Your task to perform on an android device: Show the shopping cart on amazon. Image 0: 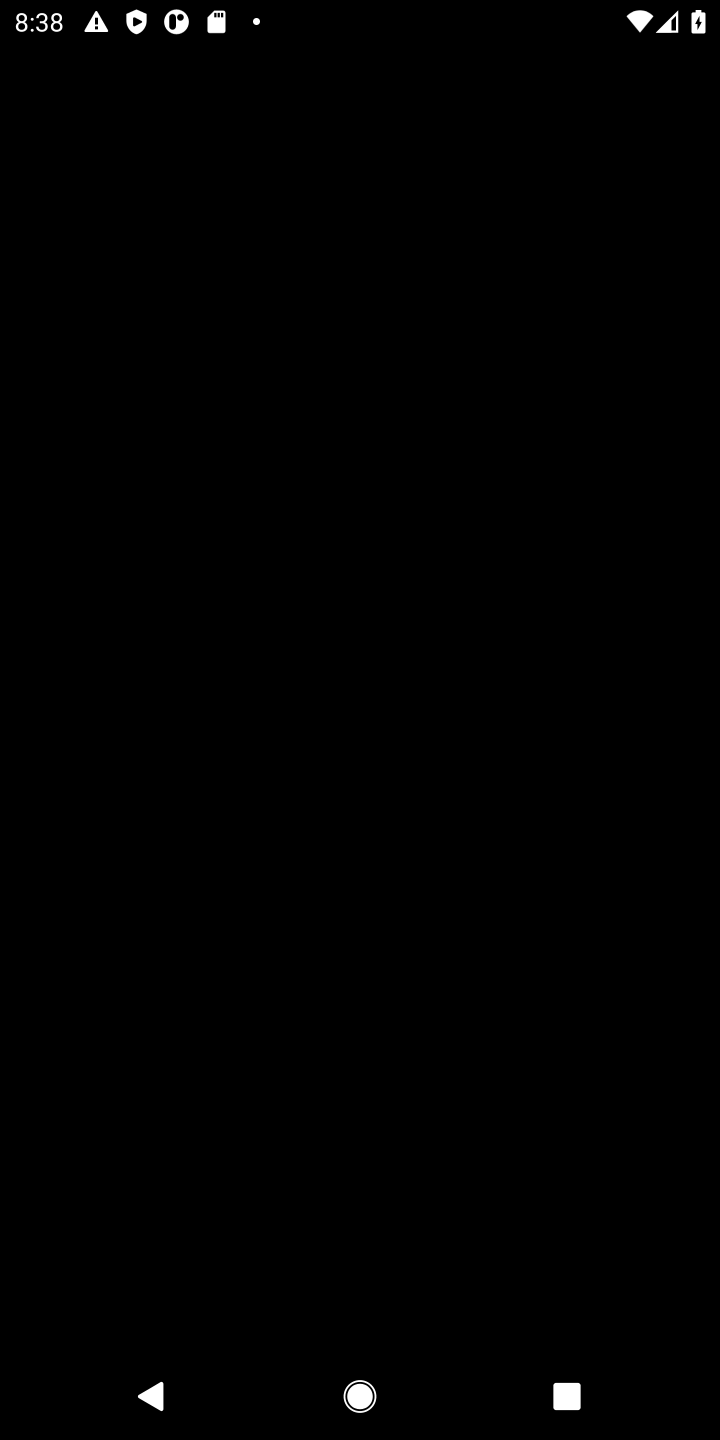
Step 0: press home button
Your task to perform on an android device: Show the shopping cart on amazon. Image 1: 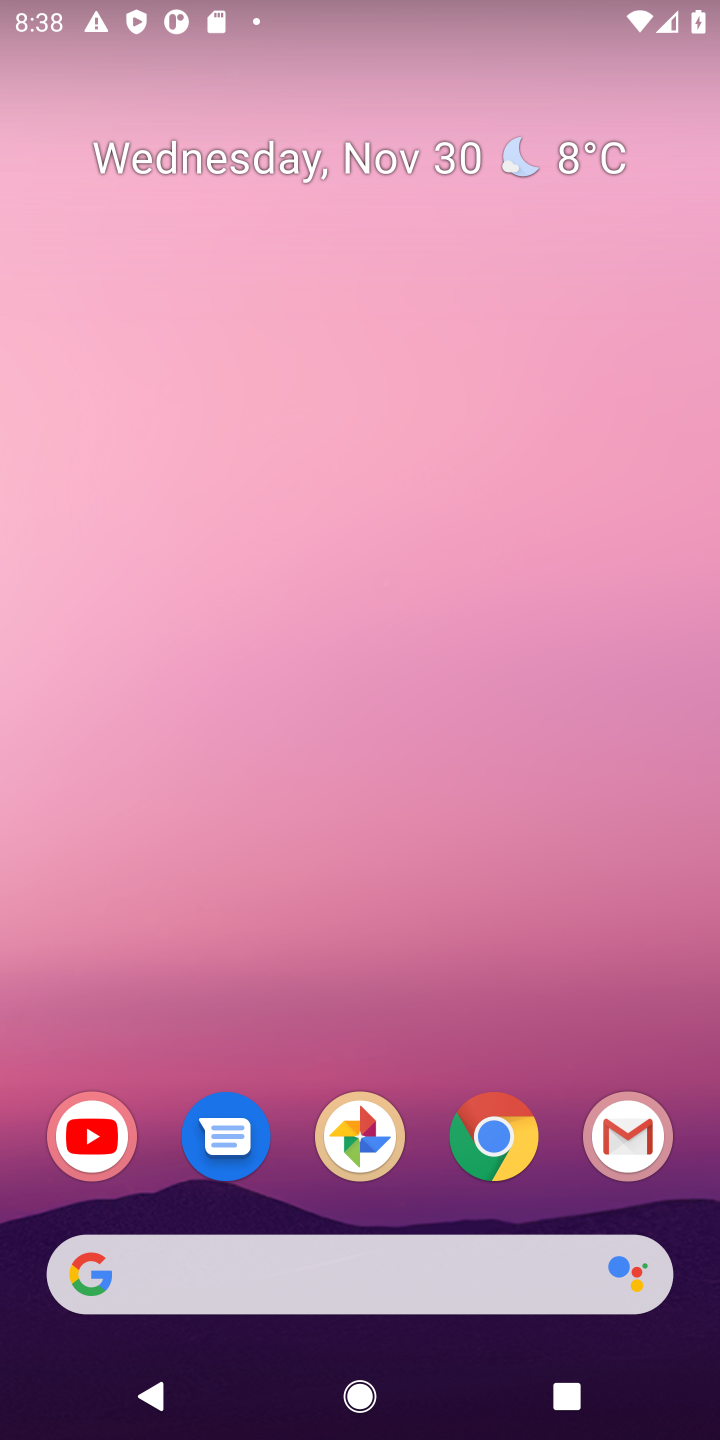
Step 1: click (503, 1144)
Your task to perform on an android device: Show the shopping cart on amazon. Image 2: 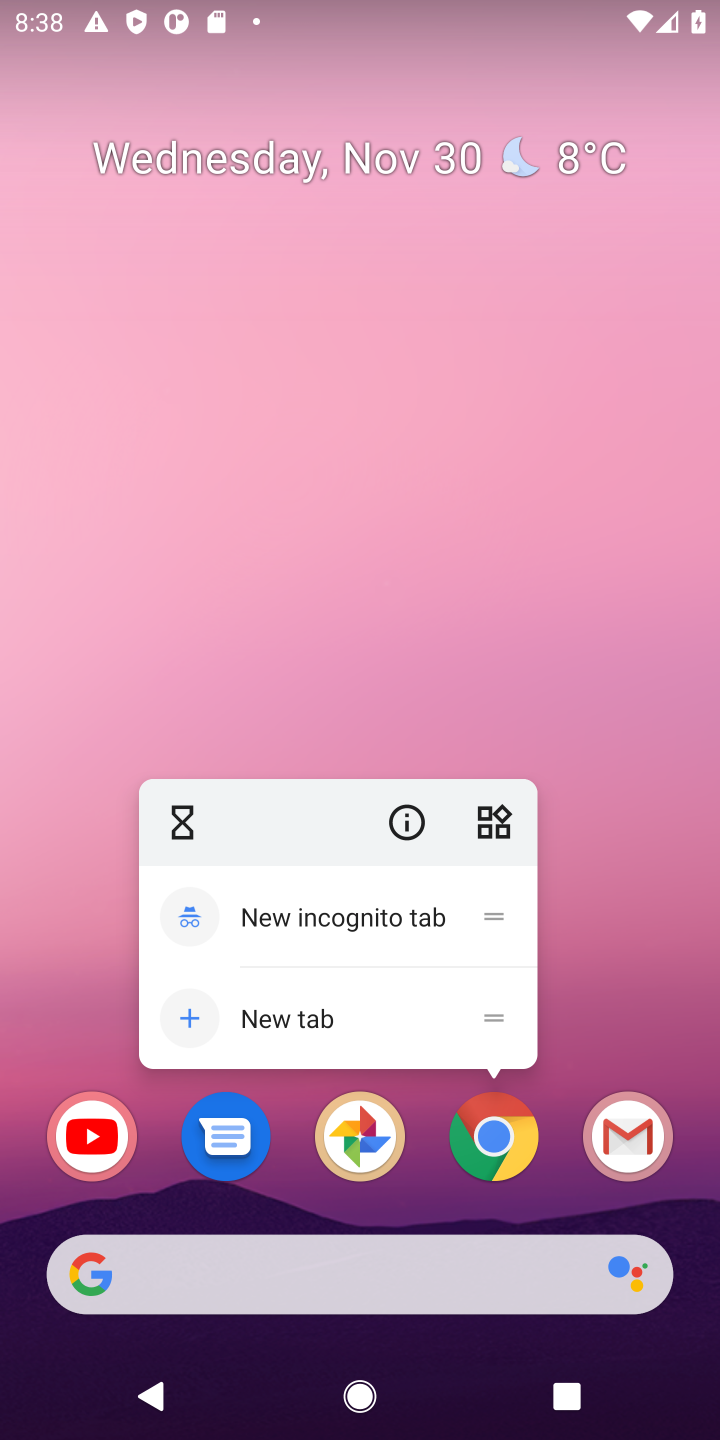
Step 2: click (503, 1144)
Your task to perform on an android device: Show the shopping cart on amazon. Image 3: 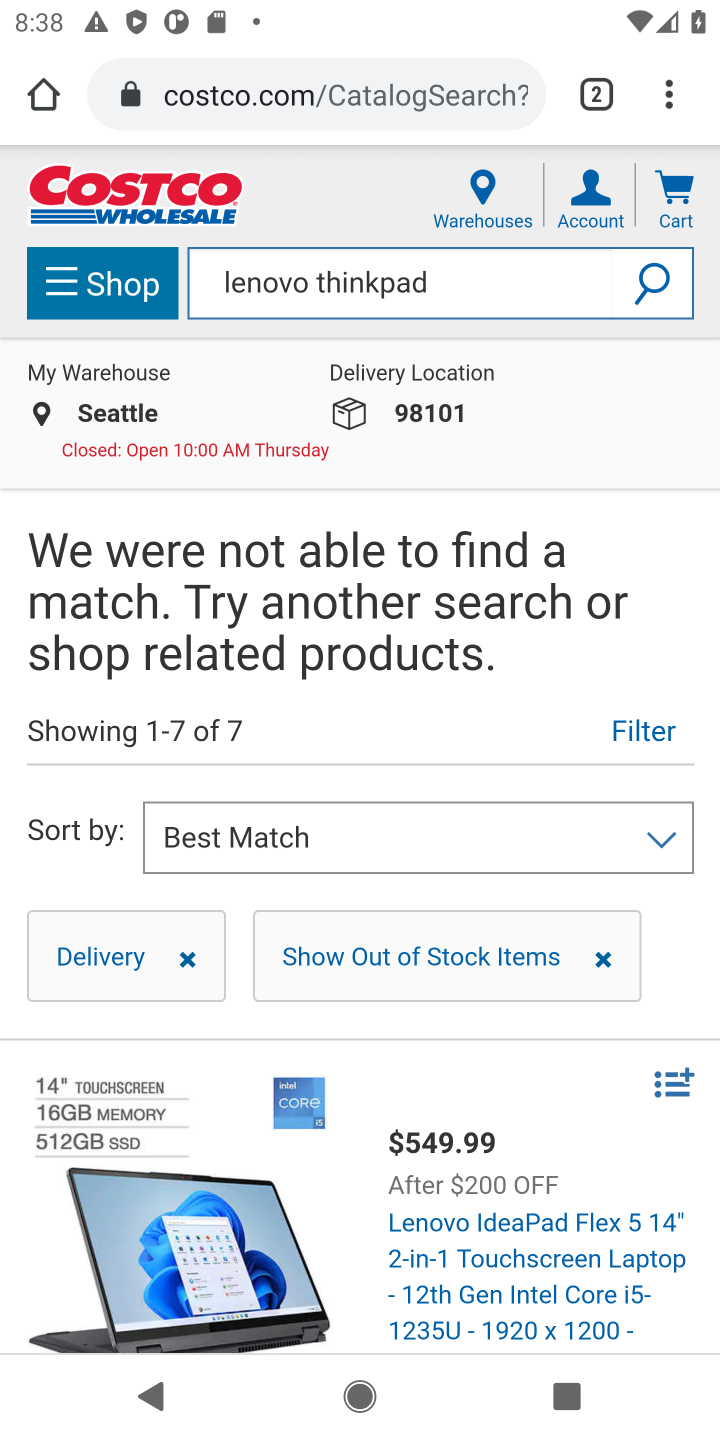
Step 3: click (310, 91)
Your task to perform on an android device: Show the shopping cart on amazon. Image 4: 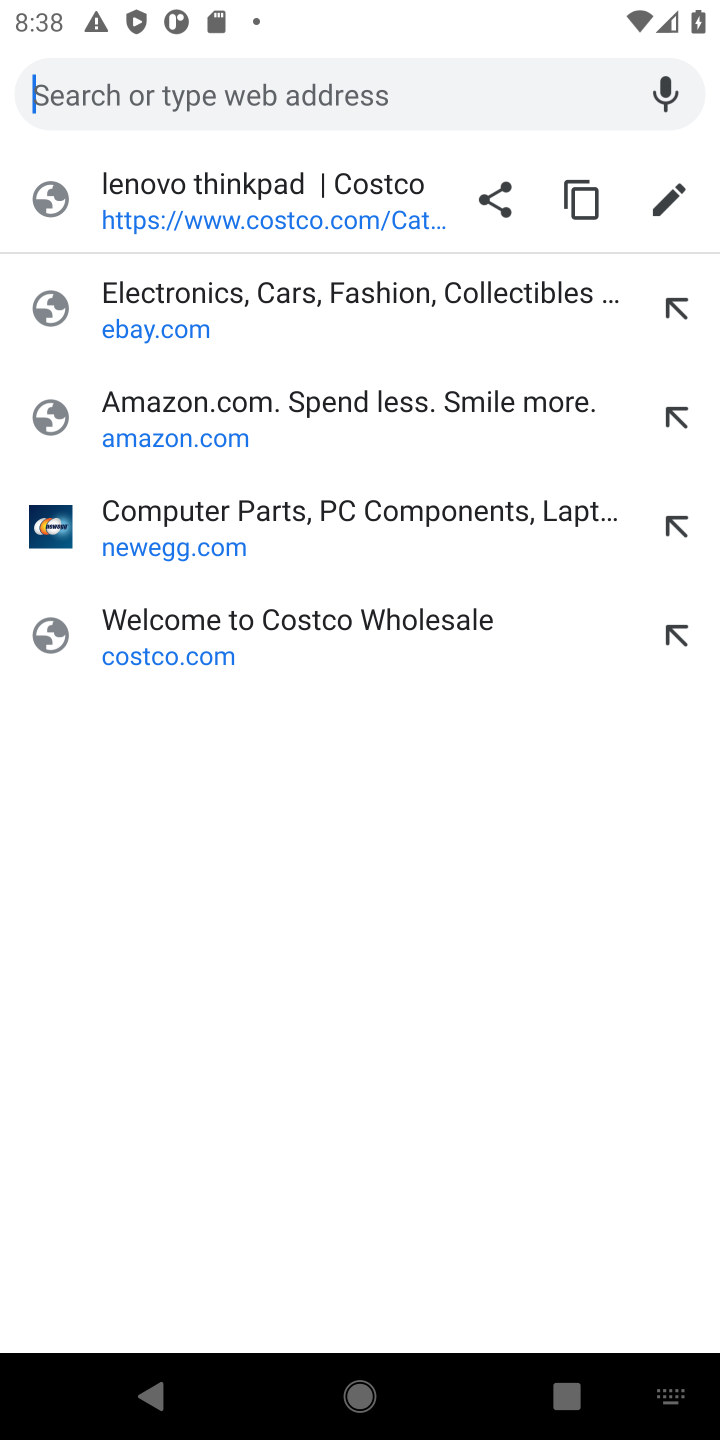
Step 4: click (110, 425)
Your task to perform on an android device: Show the shopping cart on amazon. Image 5: 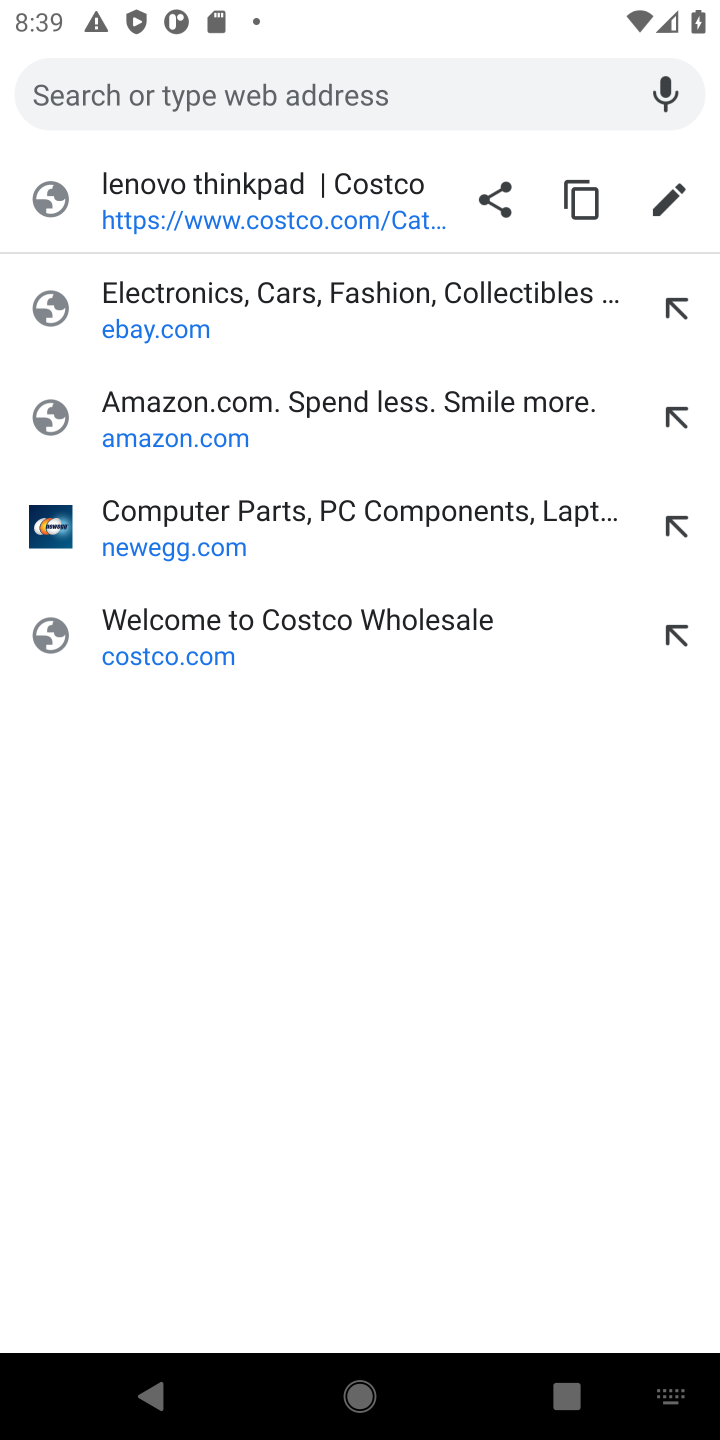
Step 5: click (158, 429)
Your task to perform on an android device: Show the shopping cart on amazon. Image 6: 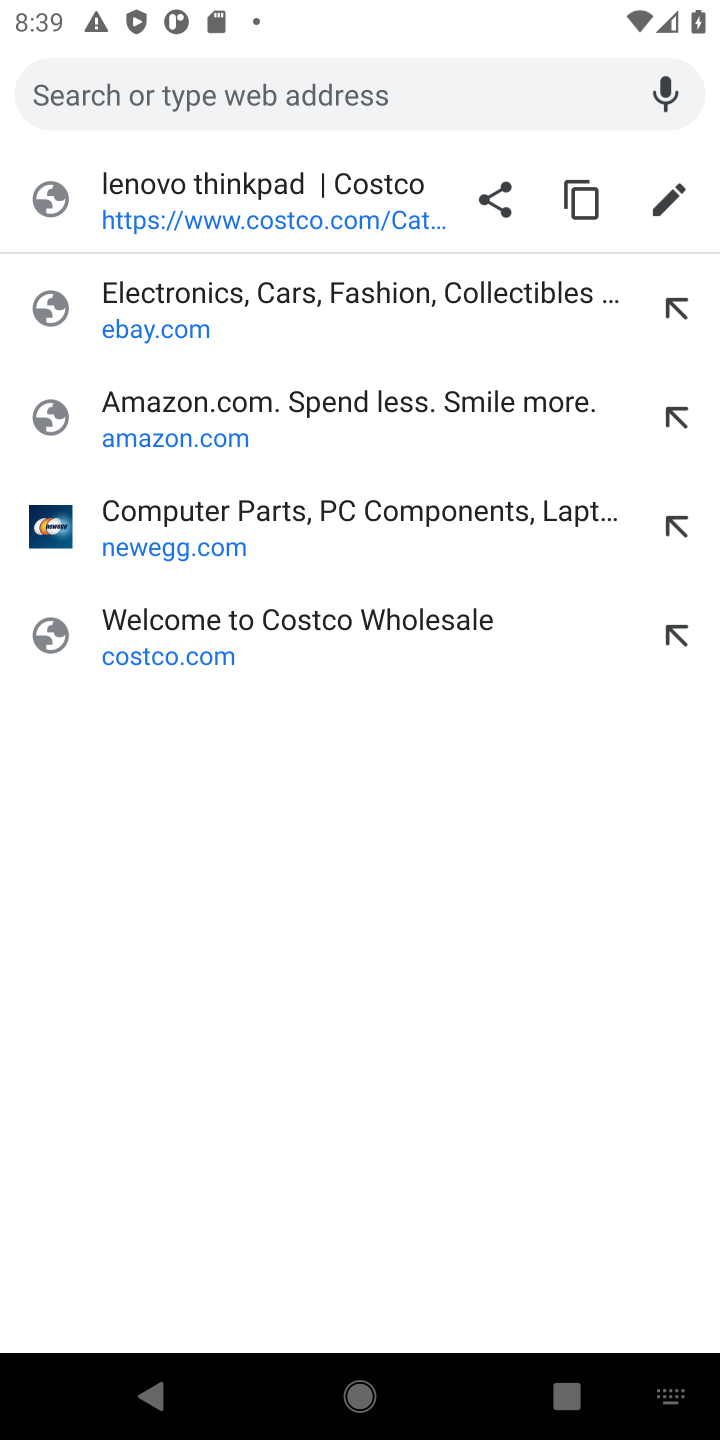
Step 6: click (152, 413)
Your task to perform on an android device: Show the shopping cart on amazon. Image 7: 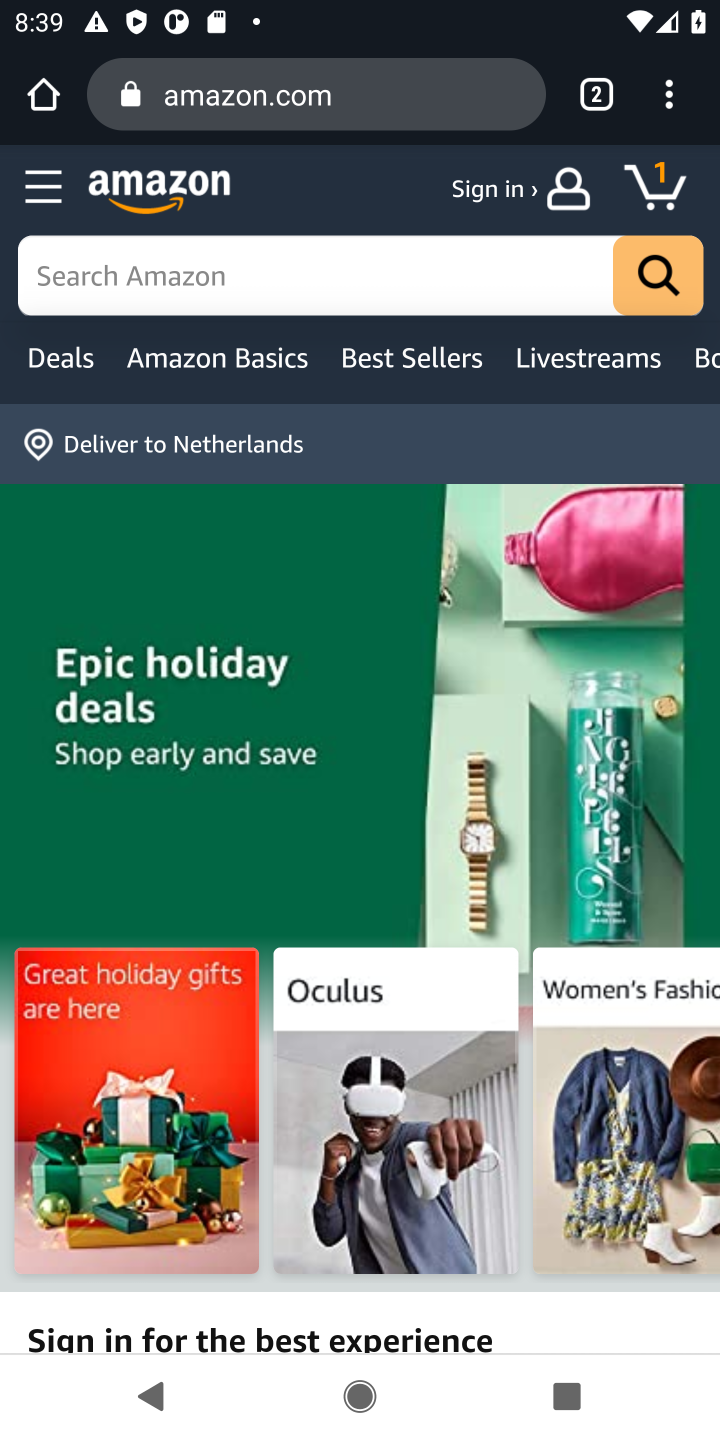
Step 7: click (643, 180)
Your task to perform on an android device: Show the shopping cart on amazon. Image 8: 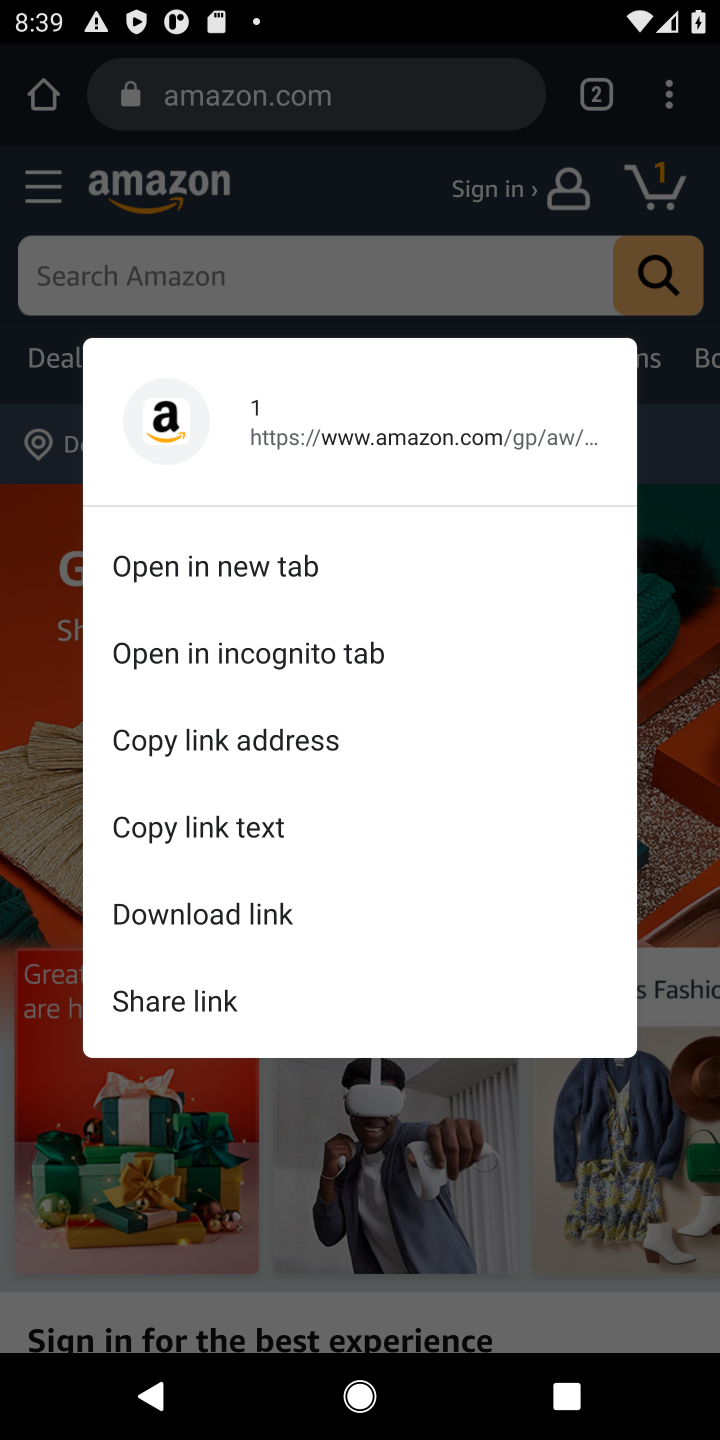
Step 8: click (671, 199)
Your task to perform on an android device: Show the shopping cart on amazon. Image 9: 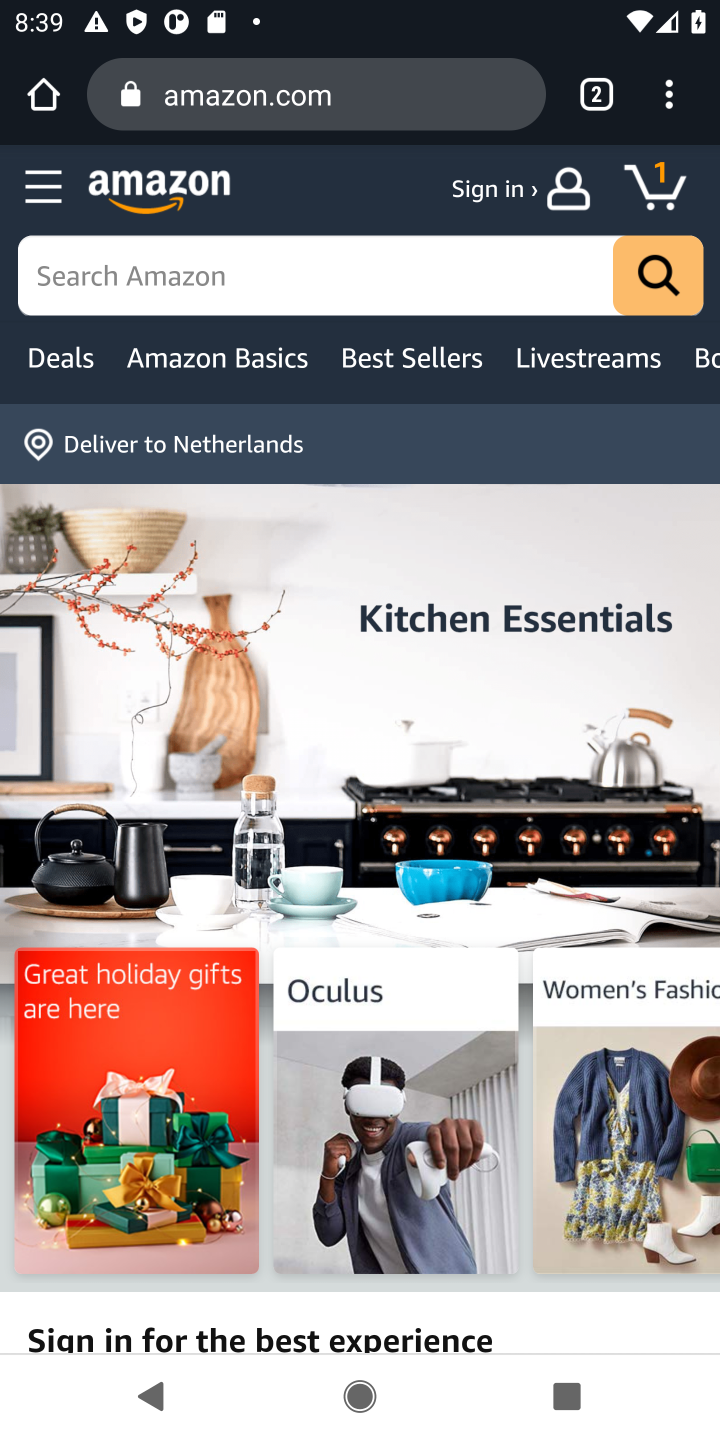
Step 9: click (649, 188)
Your task to perform on an android device: Show the shopping cart on amazon. Image 10: 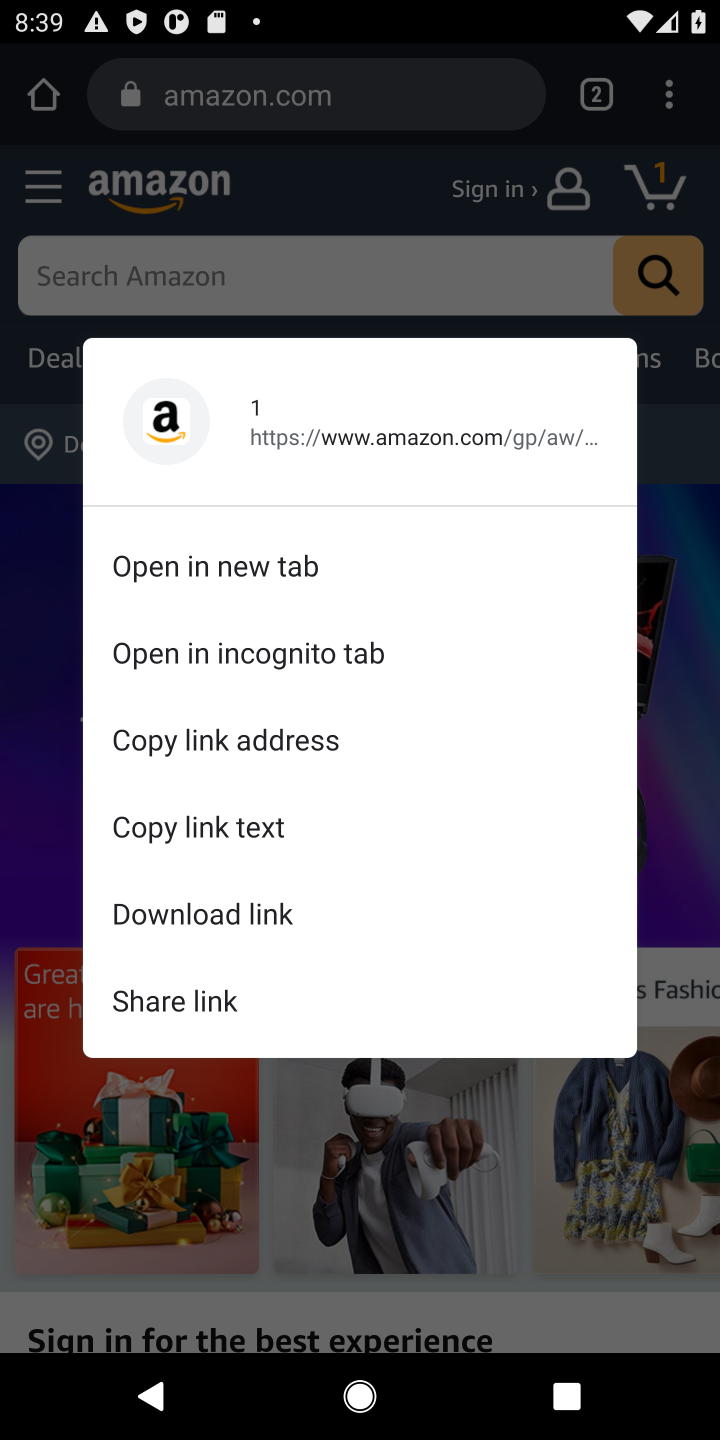
Step 10: click (649, 188)
Your task to perform on an android device: Show the shopping cart on amazon. Image 11: 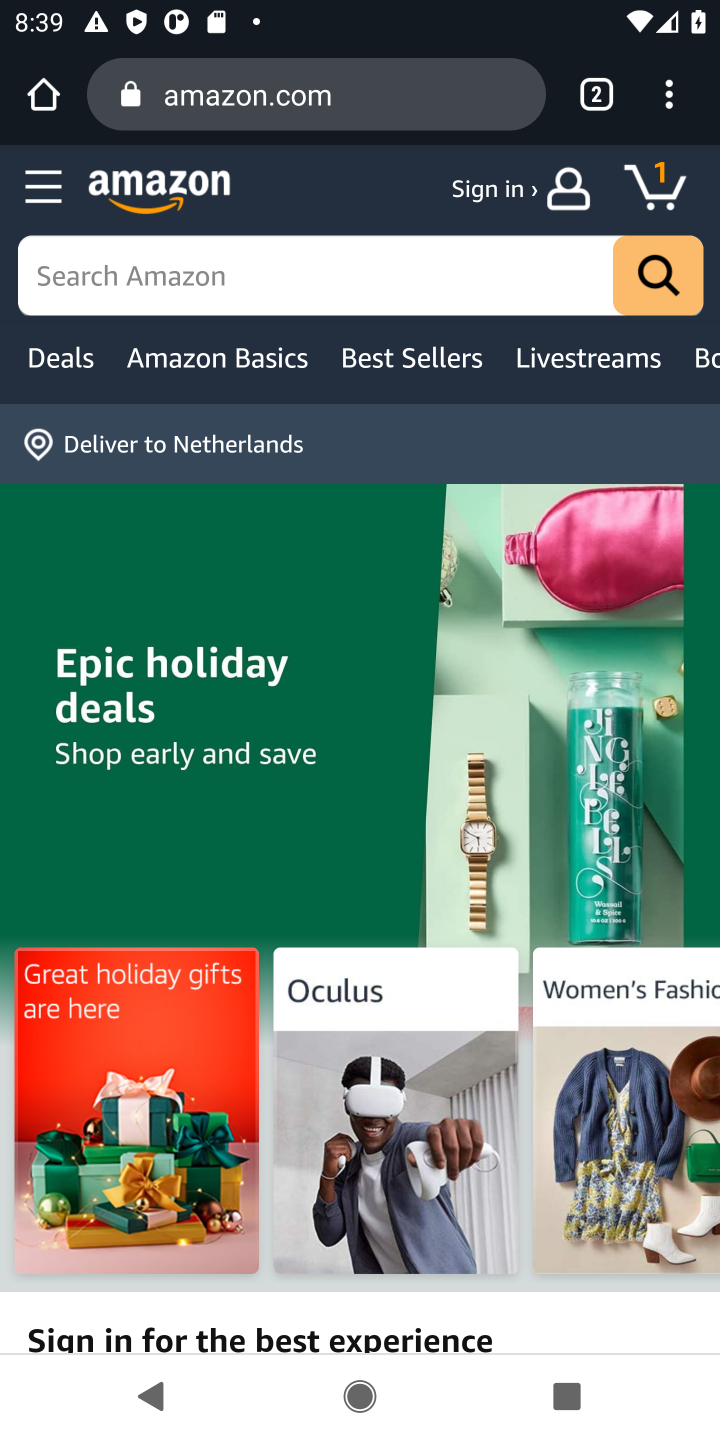
Step 11: click (670, 177)
Your task to perform on an android device: Show the shopping cart on amazon. Image 12: 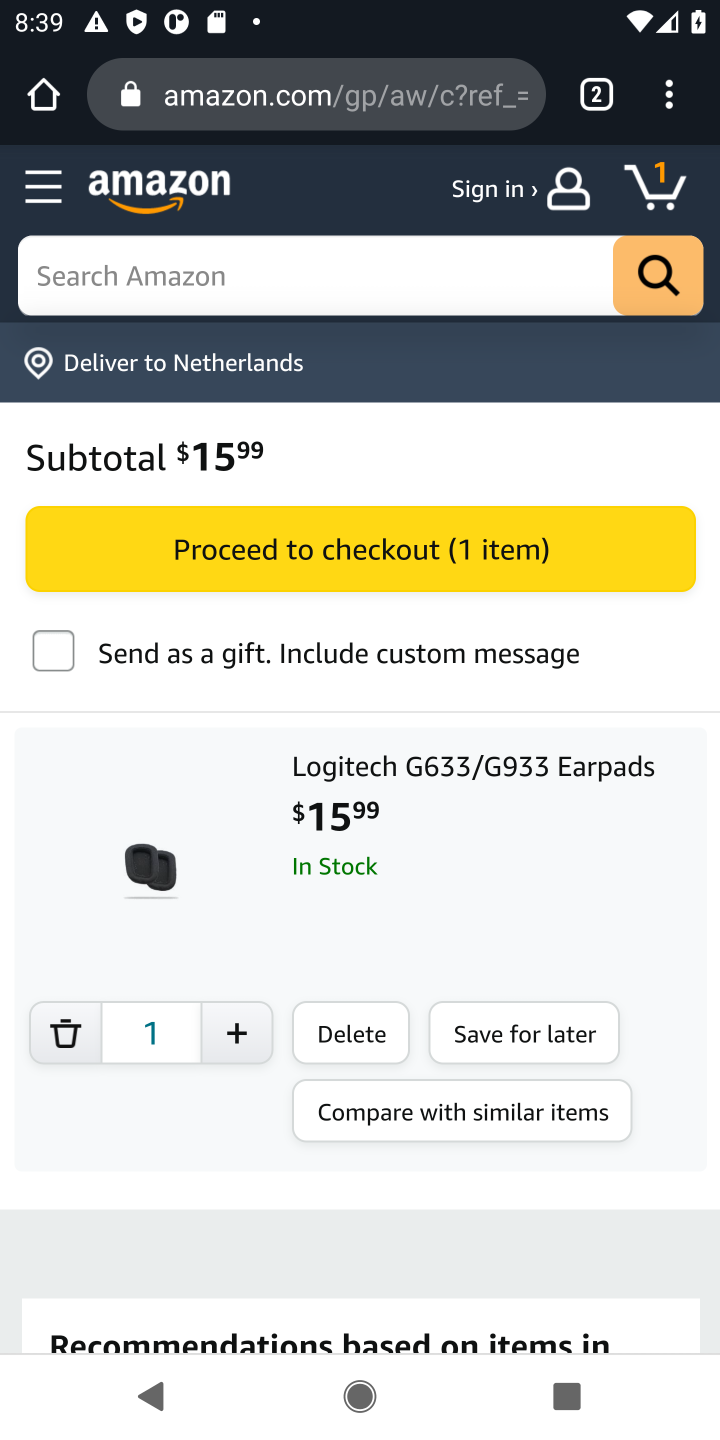
Step 12: task complete